Your task to perform on an android device: Open battery settings Image 0: 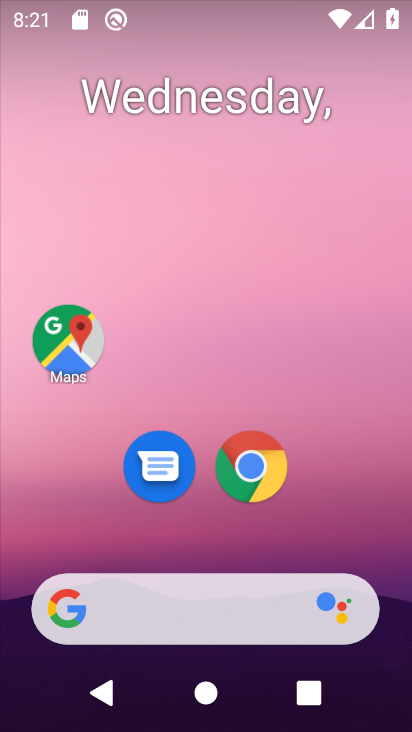
Step 0: drag from (225, 687) to (229, 216)
Your task to perform on an android device: Open battery settings Image 1: 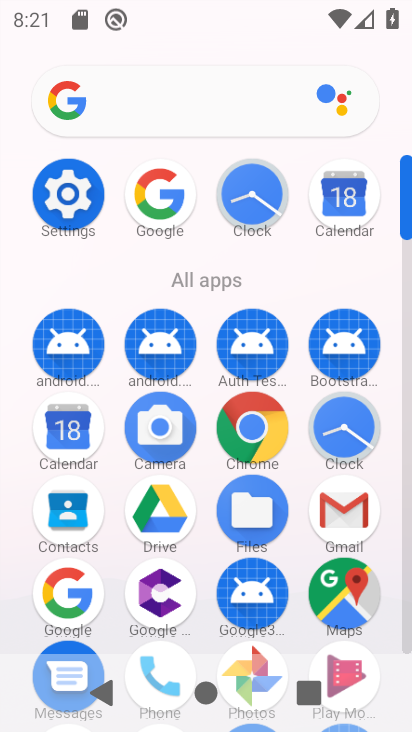
Step 1: click (79, 199)
Your task to perform on an android device: Open battery settings Image 2: 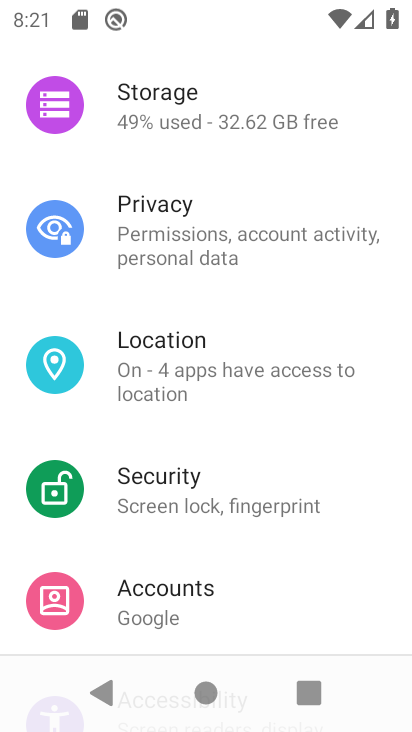
Step 2: drag from (196, 256) to (202, 580)
Your task to perform on an android device: Open battery settings Image 3: 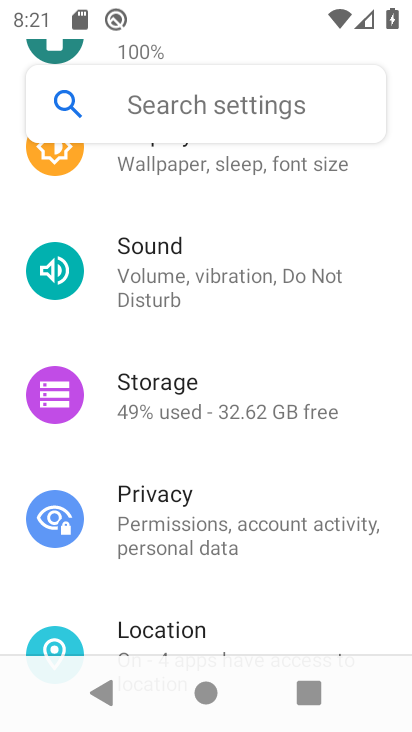
Step 3: drag from (209, 213) to (215, 493)
Your task to perform on an android device: Open battery settings Image 4: 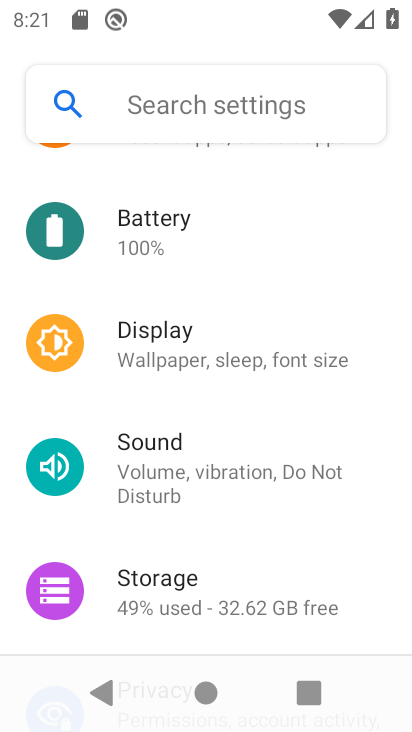
Step 4: click (154, 198)
Your task to perform on an android device: Open battery settings Image 5: 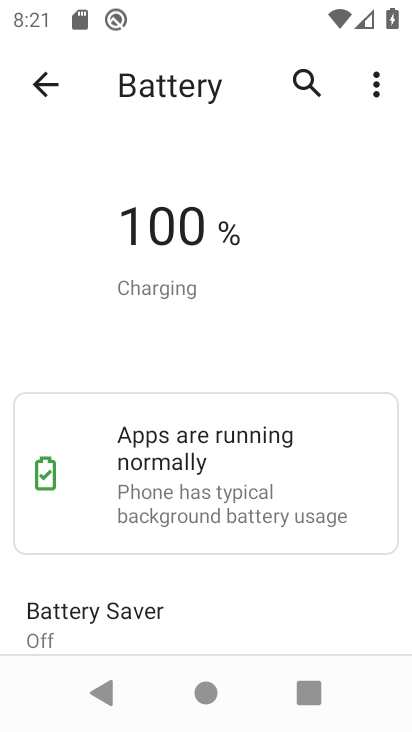
Step 5: task complete